Your task to perform on an android device: Open privacy settings Image 0: 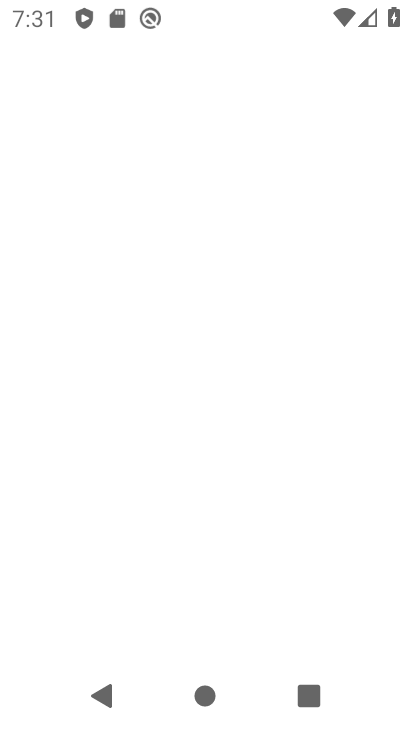
Step 0: press home button
Your task to perform on an android device: Open privacy settings Image 1: 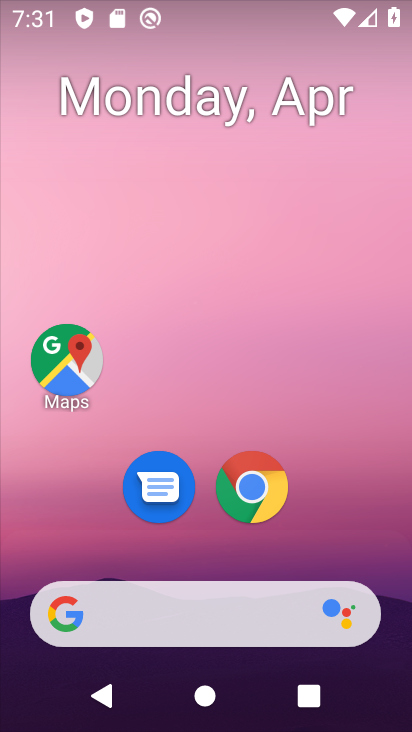
Step 1: drag from (317, 469) to (360, 68)
Your task to perform on an android device: Open privacy settings Image 2: 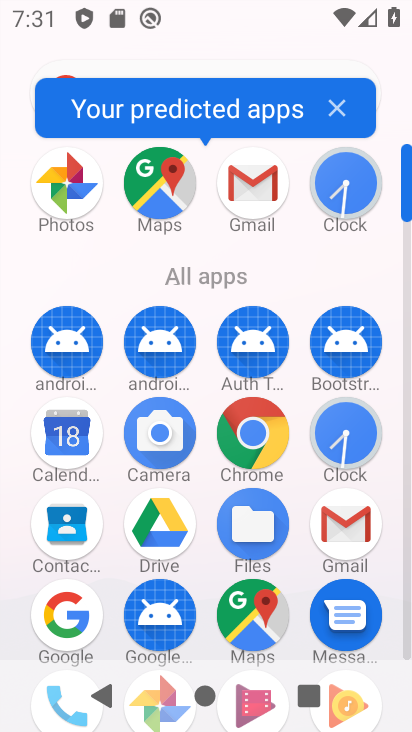
Step 2: click (253, 449)
Your task to perform on an android device: Open privacy settings Image 3: 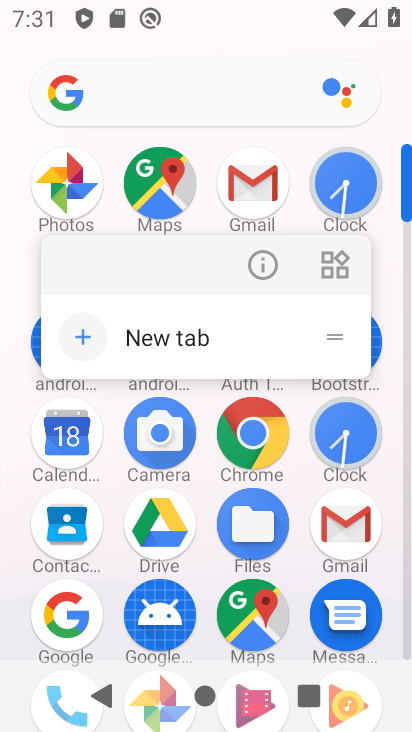
Step 3: click (253, 449)
Your task to perform on an android device: Open privacy settings Image 4: 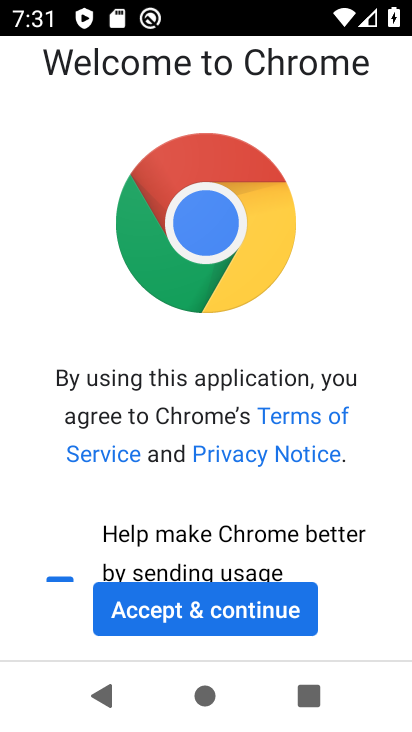
Step 4: click (263, 626)
Your task to perform on an android device: Open privacy settings Image 5: 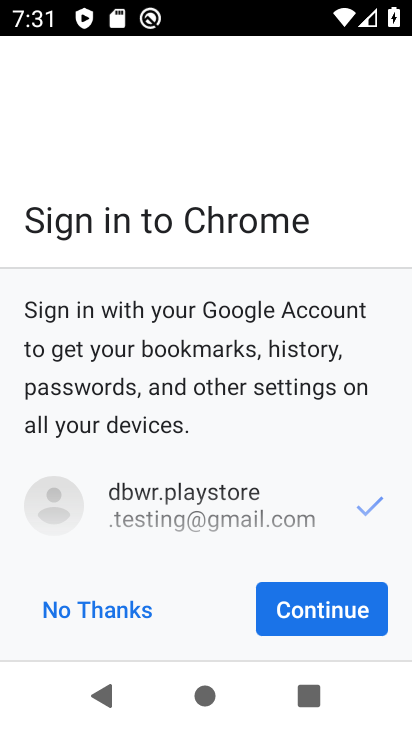
Step 5: click (277, 616)
Your task to perform on an android device: Open privacy settings Image 6: 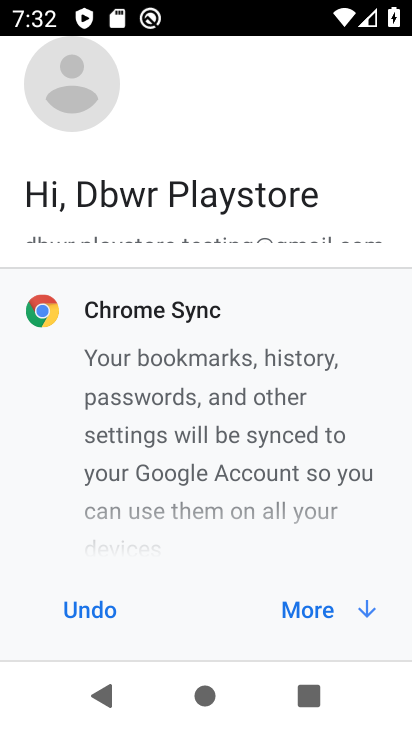
Step 6: click (307, 617)
Your task to perform on an android device: Open privacy settings Image 7: 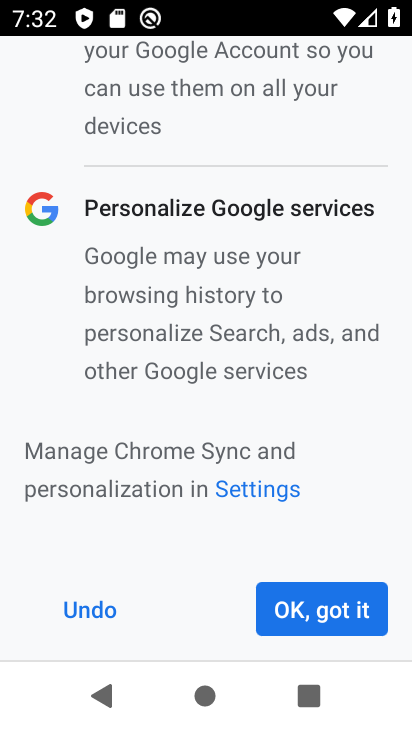
Step 7: click (307, 617)
Your task to perform on an android device: Open privacy settings Image 8: 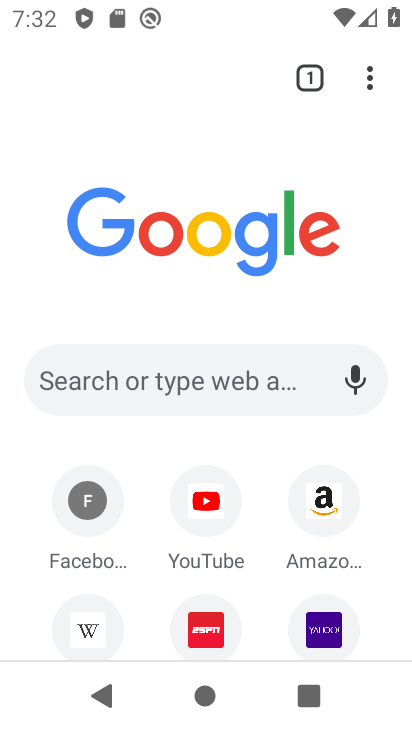
Step 8: click (366, 80)
Your task to perform on an android device: Open privacy settings Image 9: 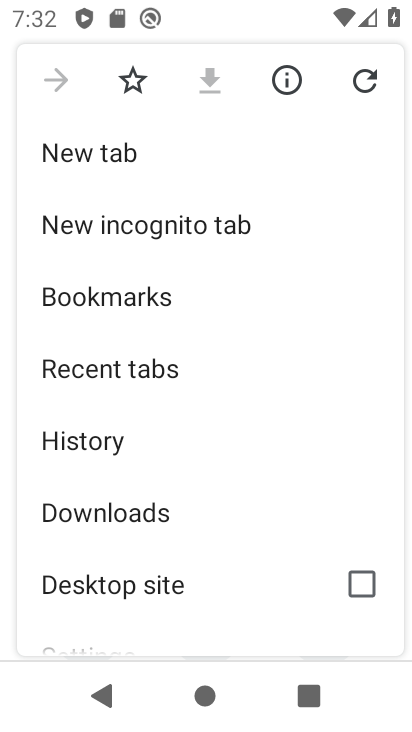
Step 9: drag from (294, 480) to (308, 281)
Your task to perform on an android device: Open privacy settings Image 10: 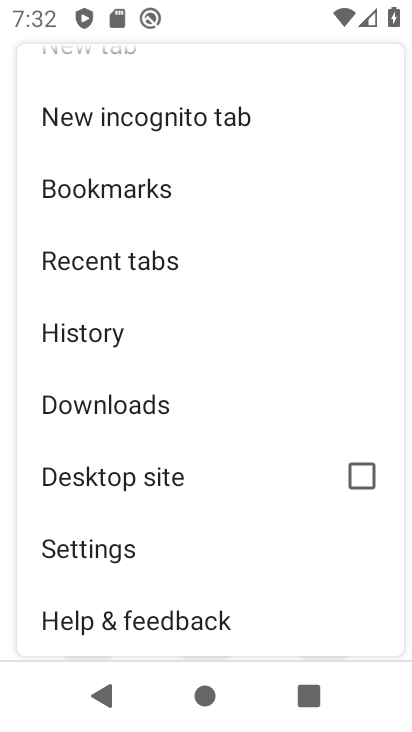
Step 10: drag from (231, 429) to (242, 318)
Your task to perform on an android device: Open privacy settings Image 11: 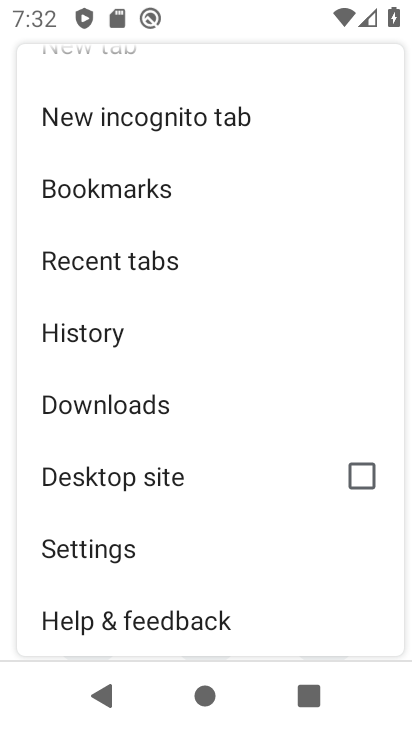
Step 11: click (117, 554)
Your task to perform on an android device: Open privacy settings Image 12: 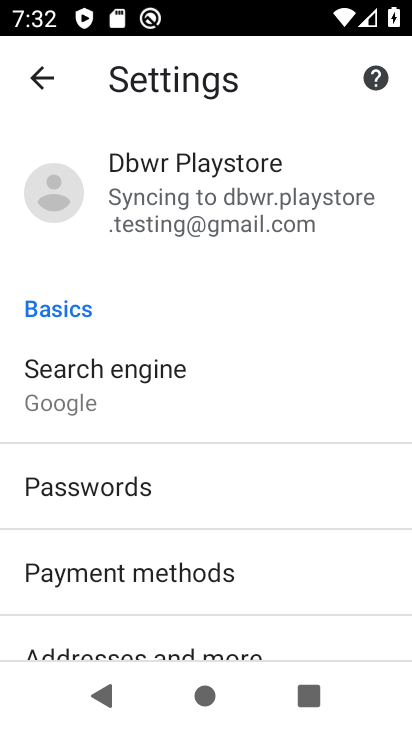
Step 12: drag from (297, 565) to (307, 387)
Your task to perform on an android device: Open privacy settings Image 13: 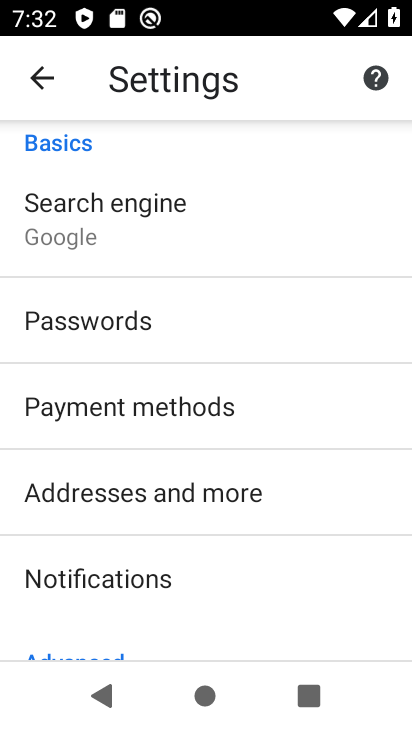
Step 13: drag from (335, 555) to (347, 302)
Your task to perform on an android device: Open privacy settings Image 14: 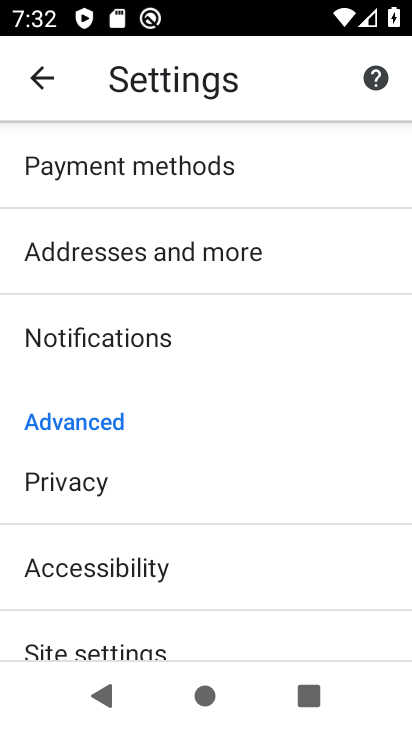
Step 14: drag from (324, 551) to (347, 285)
Your task to perform on an android device: Open privacy settings Image 15: 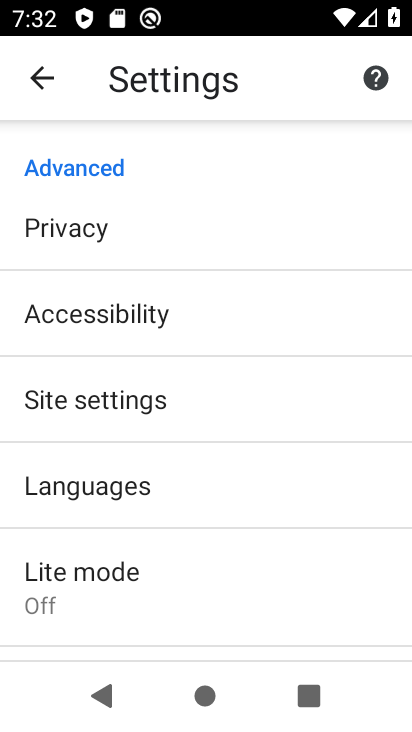
Step 15: click (107, 239)
Your task to perform on an android device: Open privacy settings Image 16: 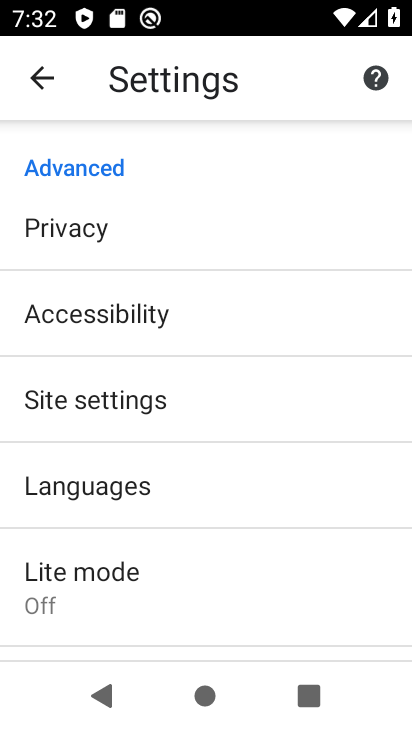
Step 16: click (97, 228)
Your task to perform on an android device: Open privacy settings Image 17: 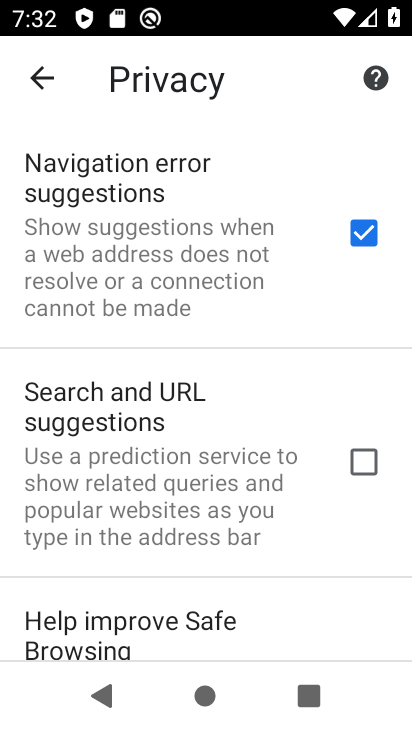
Step 17: task complete